Your task to perform on an android device: add a label to a message in the gmail app Image 0: 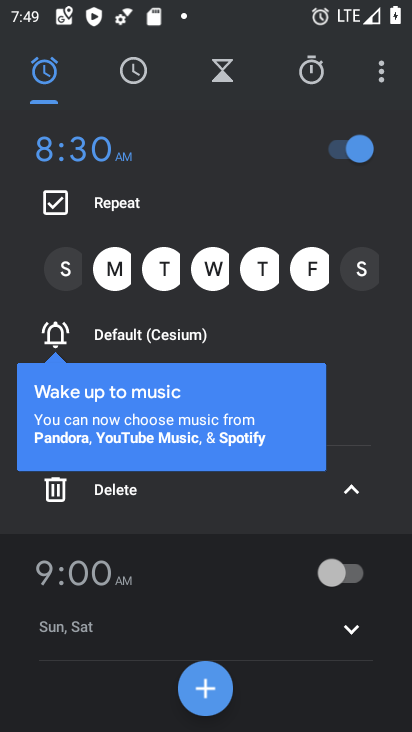
Step 0: press home button
Your task to perform on an android device: add a label to a message in the gmail app Image 1: 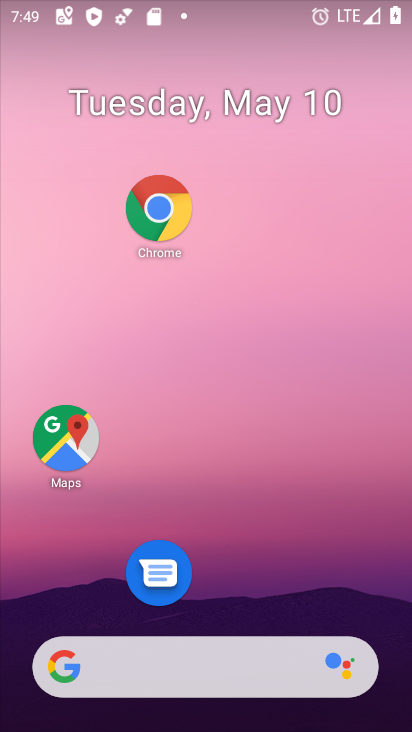
Step 1: drag from (296, 705) to (303, 216)
Your task to perform on an android device: add a label to a message in the gmail app Image 2: 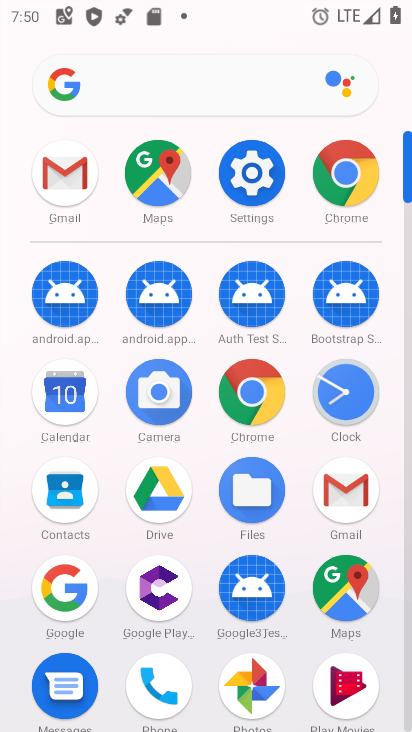
Step 2: click (77, 185)
Your task to perform on an android device: add a label to a message in the gmail app Image 3: 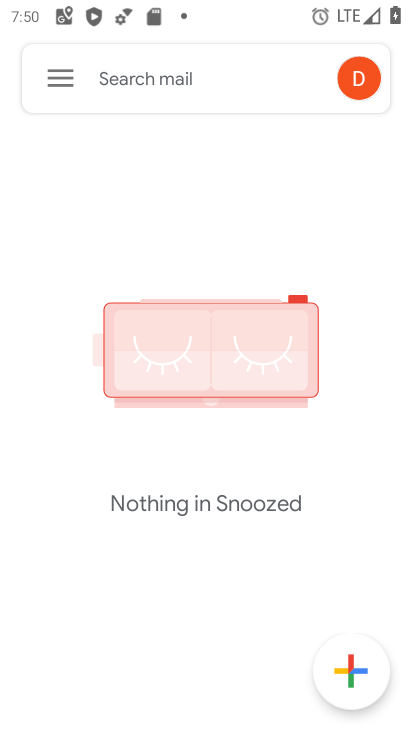
Step 3: click (58, 73)
Your task to perform on an android device: add a label to a message in the gmail app Image 4: 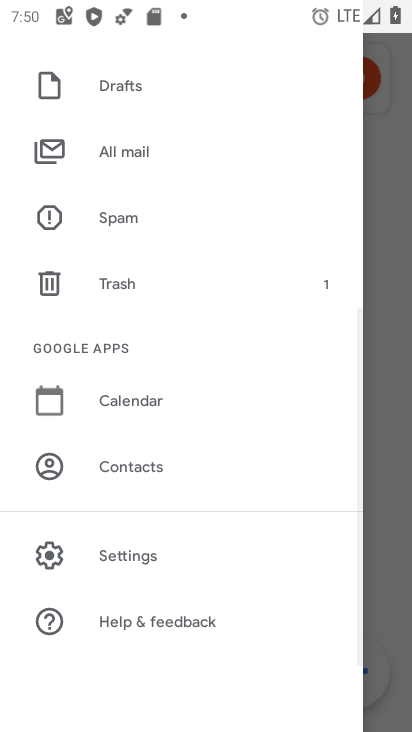
Step 4: click (175, 564)
Your task to perform on an android device: add a label to a message in the gmail app Image 5: 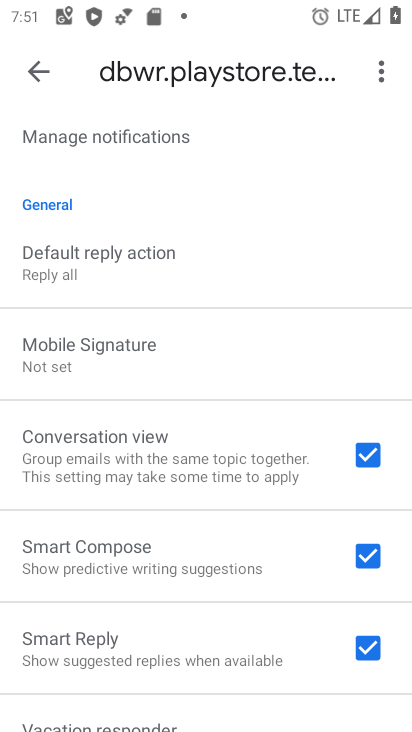
Step 5: click (35, 73)
Your task to perform on an android device: add a label to a message in the gmail app Image 6: 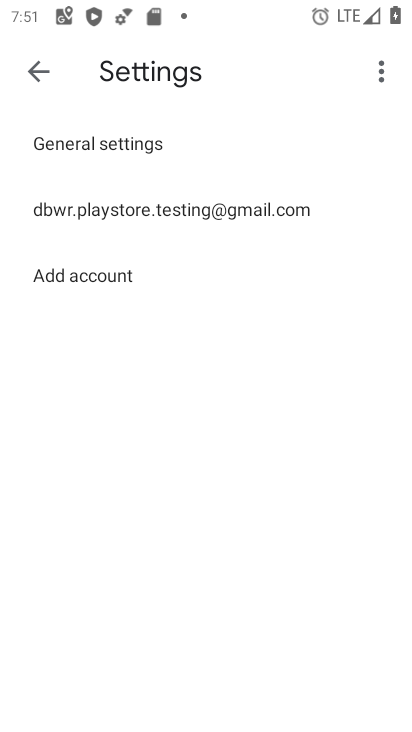
Step 6: click (121, 208)
Your task to perform on an android device: add a label to a message in the gmail app Image 7: 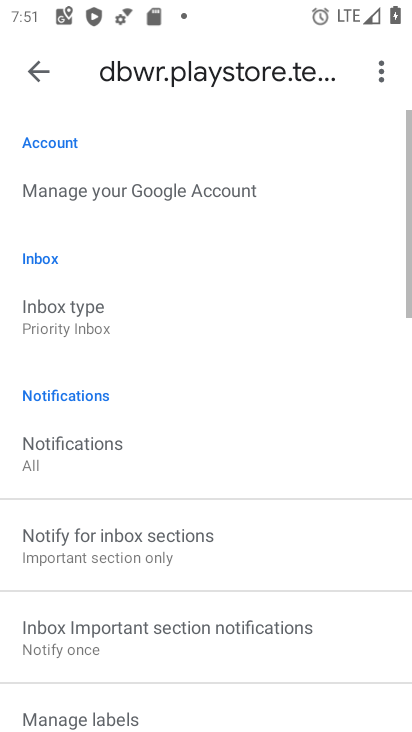
Step 7: drag from (224, 496) to (276, 290)
Your task to perform on an android device: add a label to a message in the gmail app Image 8: 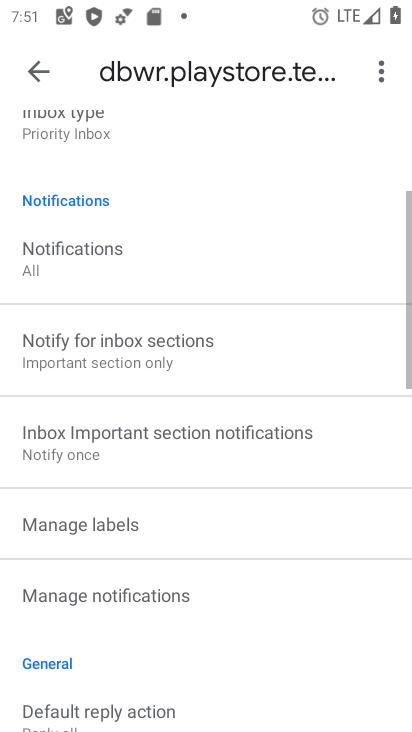
Step 8: click (173, 544)
Your task to perform on an android device: add a label to a message in the gmail app Image 9: 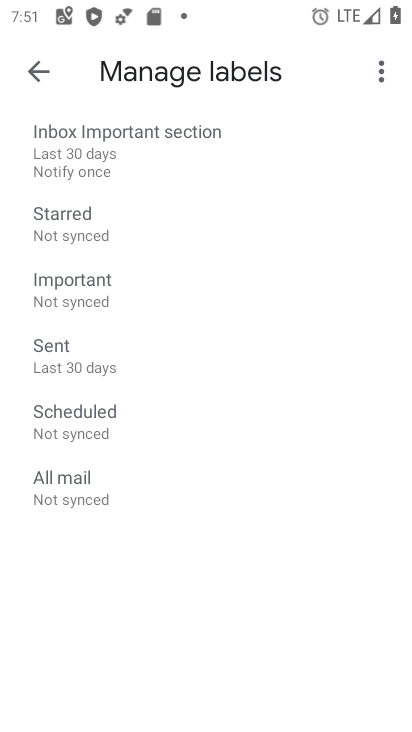
Step 9: click (105, 172)
Your task to perform on an android device: add a label to a message in the gmail app Image 10: 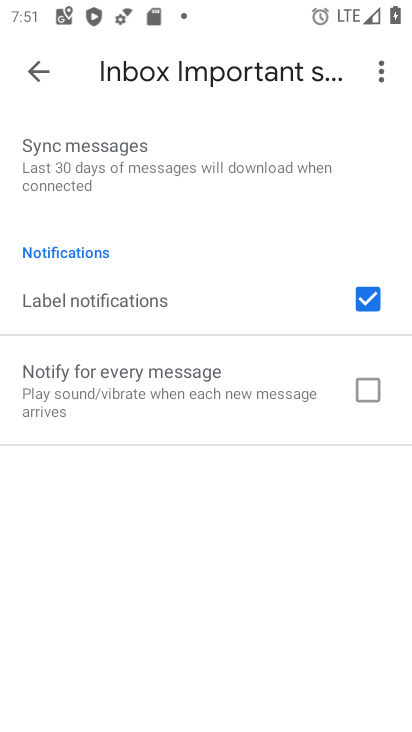
Step 10: task complete